Your task to perform on an android device: Open Chrome and go to settings Image 0: 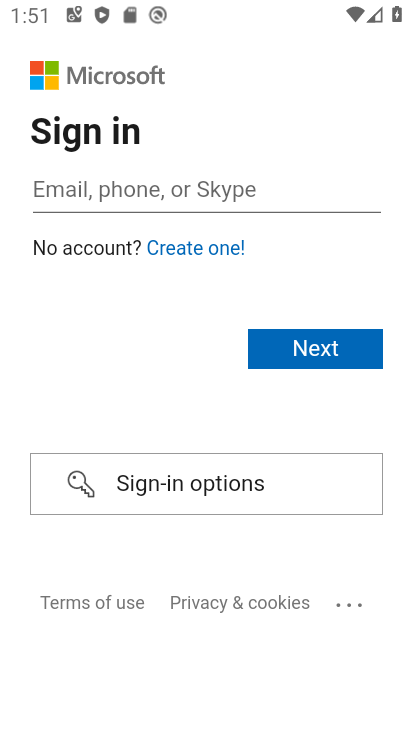
Step 0: press home button
Your task to perform on an android device: Open Chrome and go to settings Image 1: 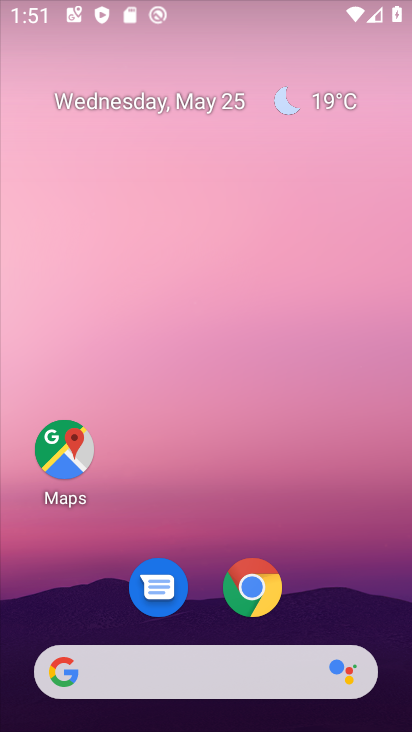
Step 1: click (254, 585)
Your task to perform on an android device: Open Chrome and go to settings Image 2: 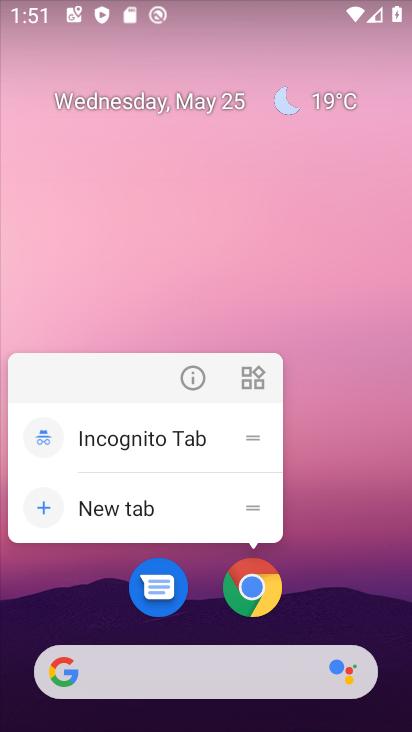
Step 2: click (254, 585)
Your task to perform on an android device: Open Chrome and go to settings Image 3: 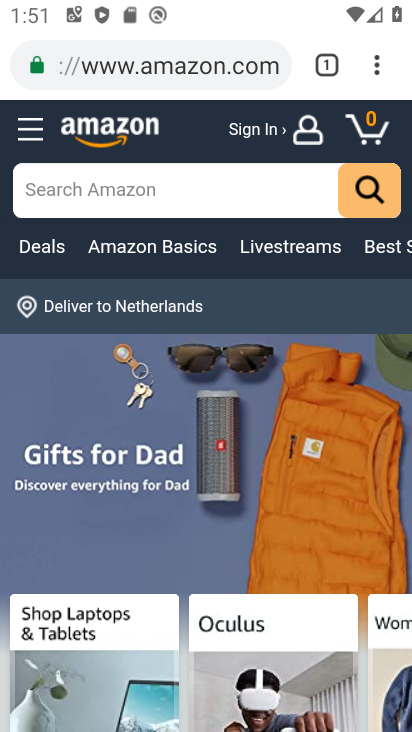
Step 3: click (371, 69)
Your task to perform on an android device: Open Chrome and go to settings Image 4: 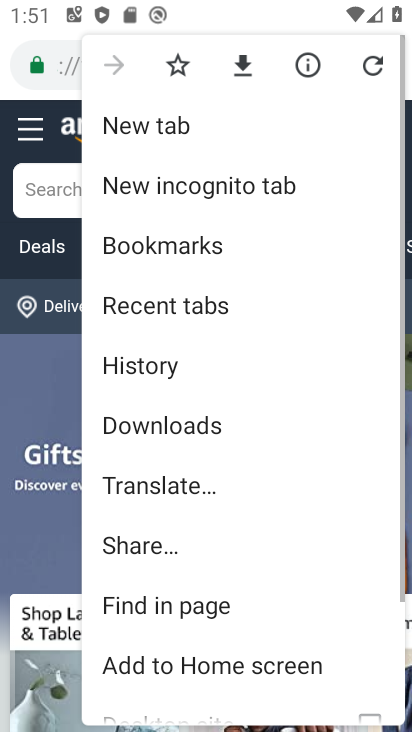
Step 4: drag from (250, 563) to (267, 132)
Your task to perform on an android device: Open Chrome and go to settings Image 5: 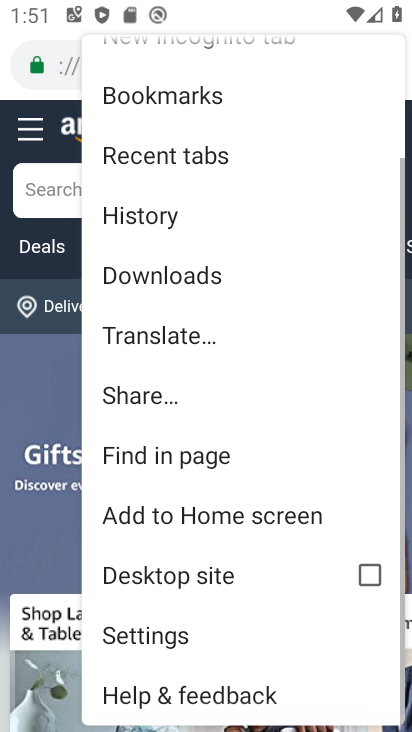
Step 5: click (192, 629)
Your task to perform on an android device: Open Chrome and go to settings Image 6: 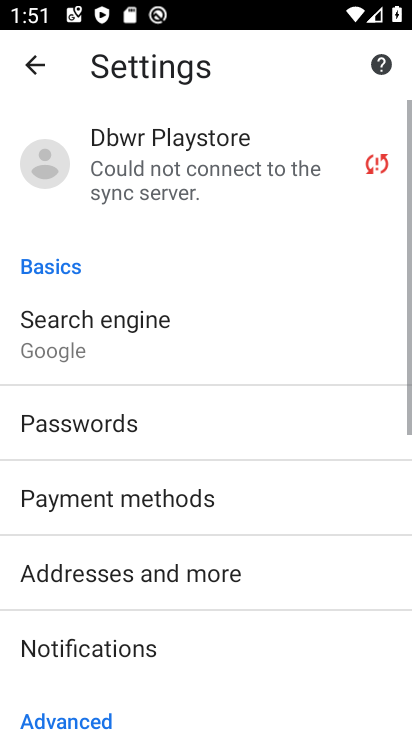
Step 6: task complete